Your task to perform on an android device: Go to accessibility settings Image 0: 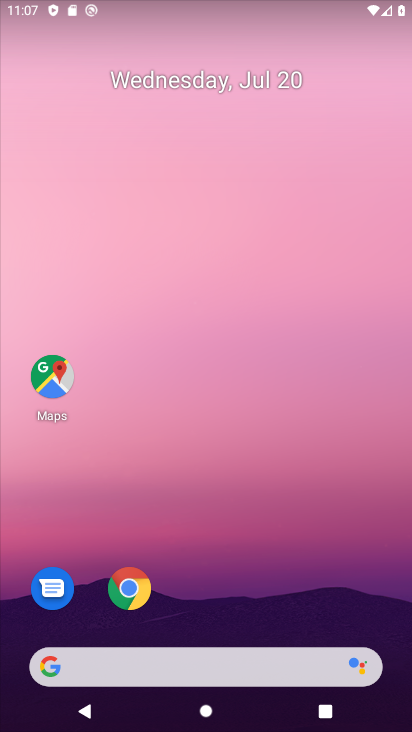
Step 0: press home button
Your task to perform on an android device: Go to accessibility settings Image 1: 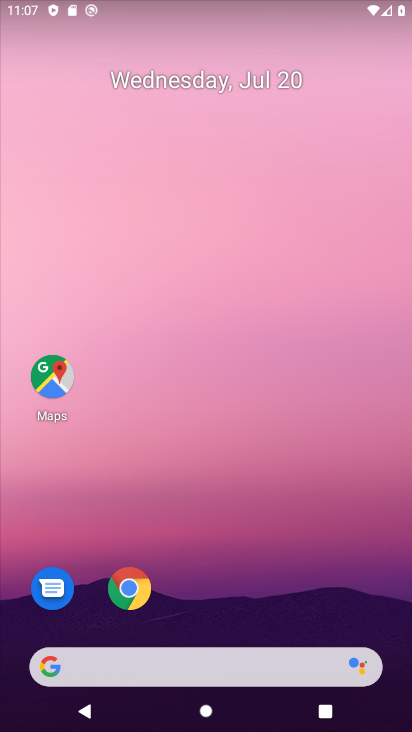
Step 1: drag from (349, 517) to (274, 57)
Your task to perform on an android device: Go to accessibility settings Image 2: 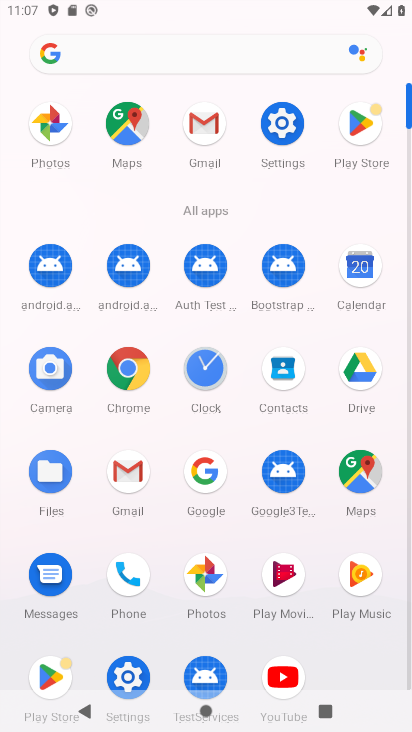
Step 2: click (288, 122)
Your task to perform on an android device: Go to accessibility settings Image 3: 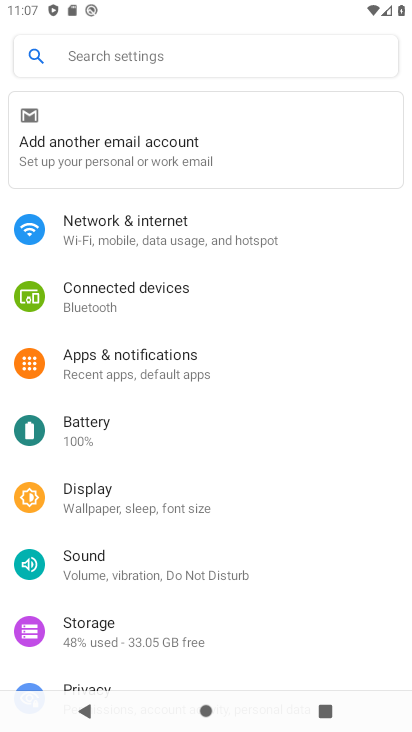
Step 3: drag from (297, 669) to (321, 243)
Your task to perform on an android device: Go to accessibility settings Image 4: 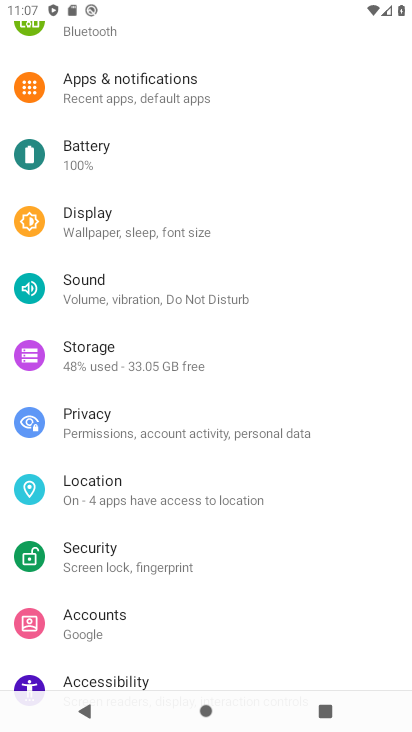
Step 4: click (130, 682)
Your task to perform on an android device: Go to accessibility settings Image 5: 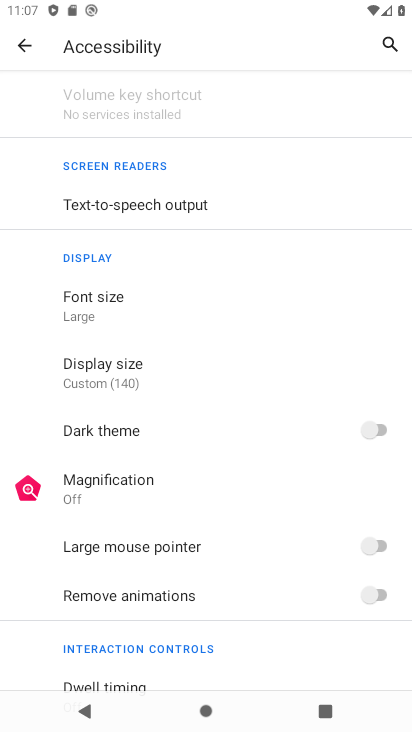
Step 5: task complete